Your task to perform on an android device: What is the recent news? Image 0: 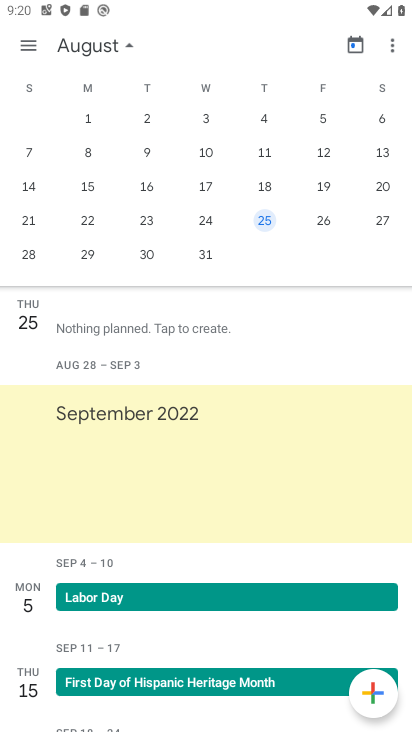
Step 0: press home button
Your task to perform on an android device: What is the recent news? Image 1: 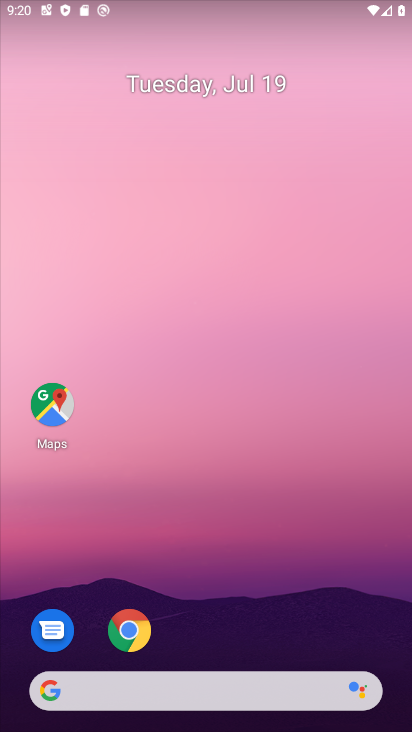
Step 1: drag from (197, 630) to (224, 48)
Your task to perform on an android device: What is the recent news? Image 2: 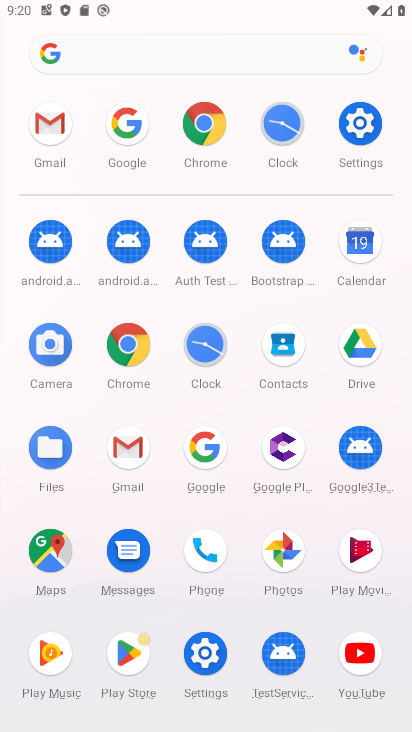
Step 2: click (208, 447)
Your task to perform on an android device: What is the recent news? Image 3: 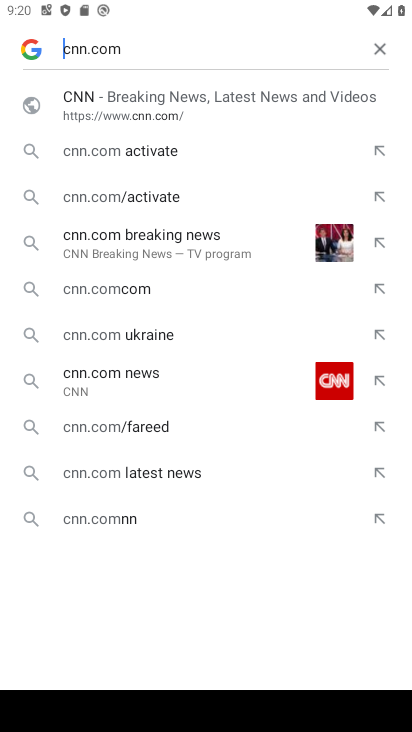
Step 3: click (377, 46)
Your task to perform on an android device: What is the recent news? Image 4: 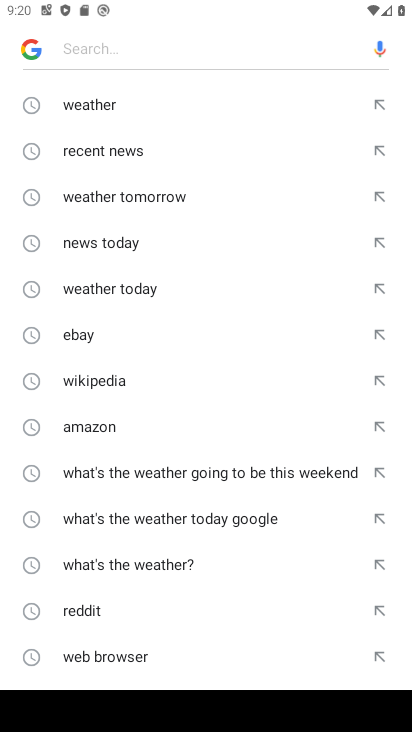
Step 4: click (118, 150)
Your task to perform on an android device: What is the recent news? Image 5: 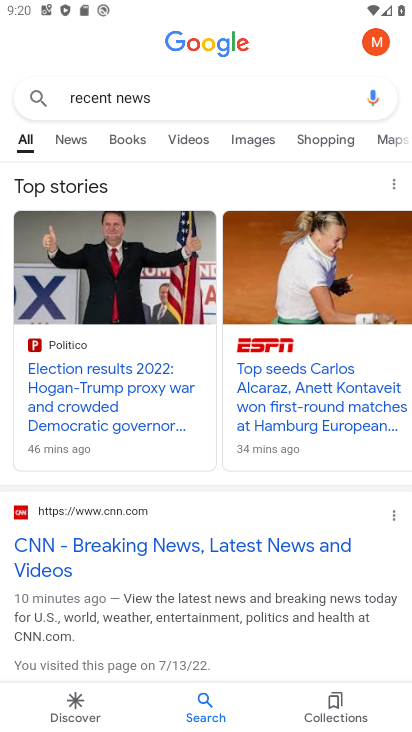
Step 5: task complete